Your task to perform on an android device: Open calendar and show me the second week of next month Image 0: 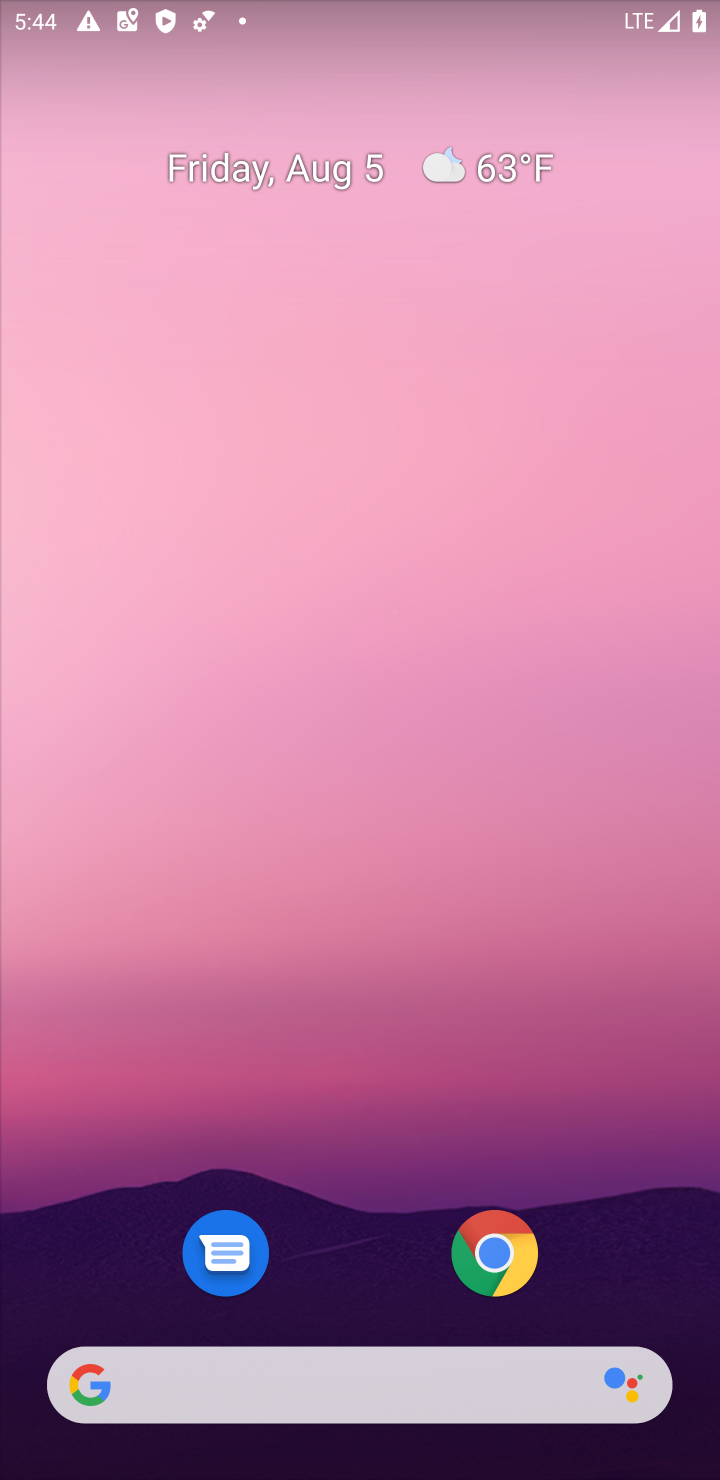
Step 0: drag from (311, 341) to (311, 189)
Your task to perform on an android device: Open calendar and show me the second week of next month Image 1: 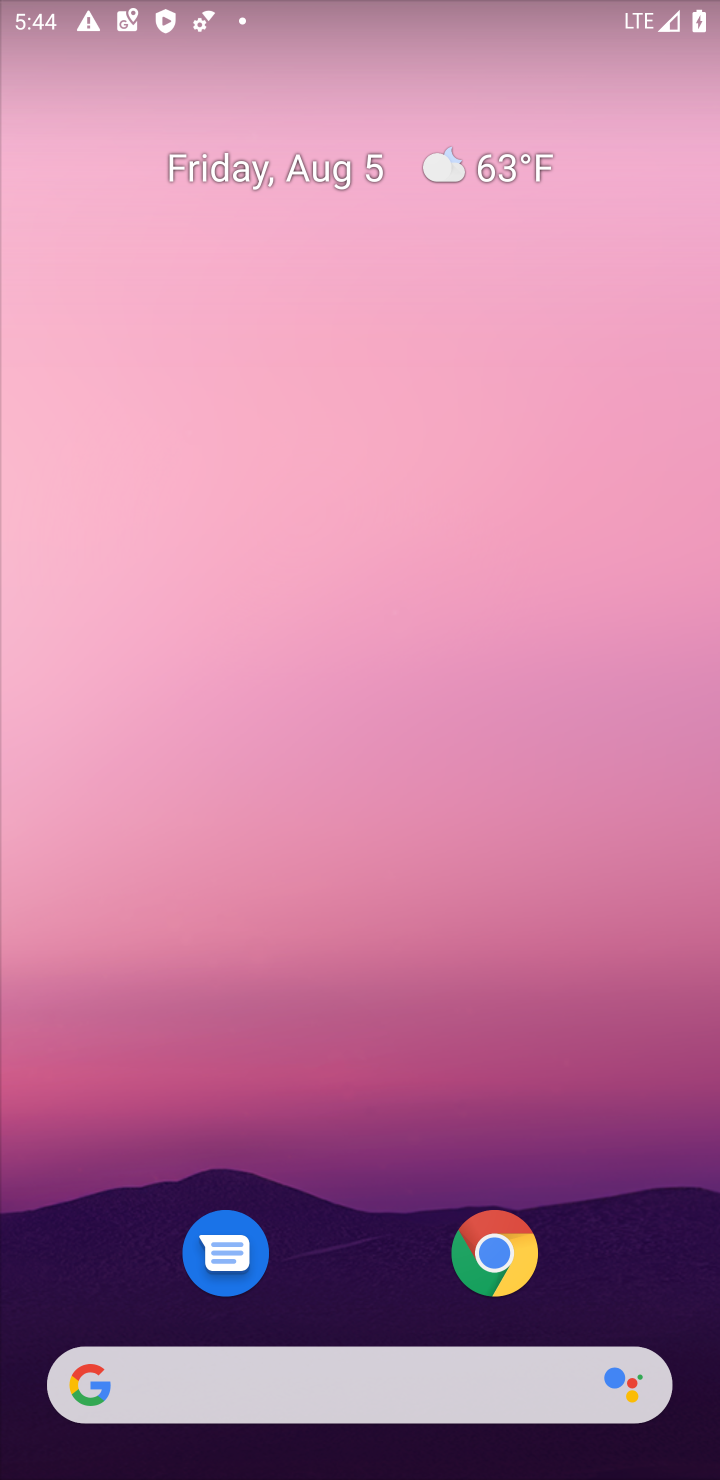
Step 1: drag from (353, 1036) to (396, 14)
Your task to perform on an android device: Open calendar and show me the second week of next month Image 2: 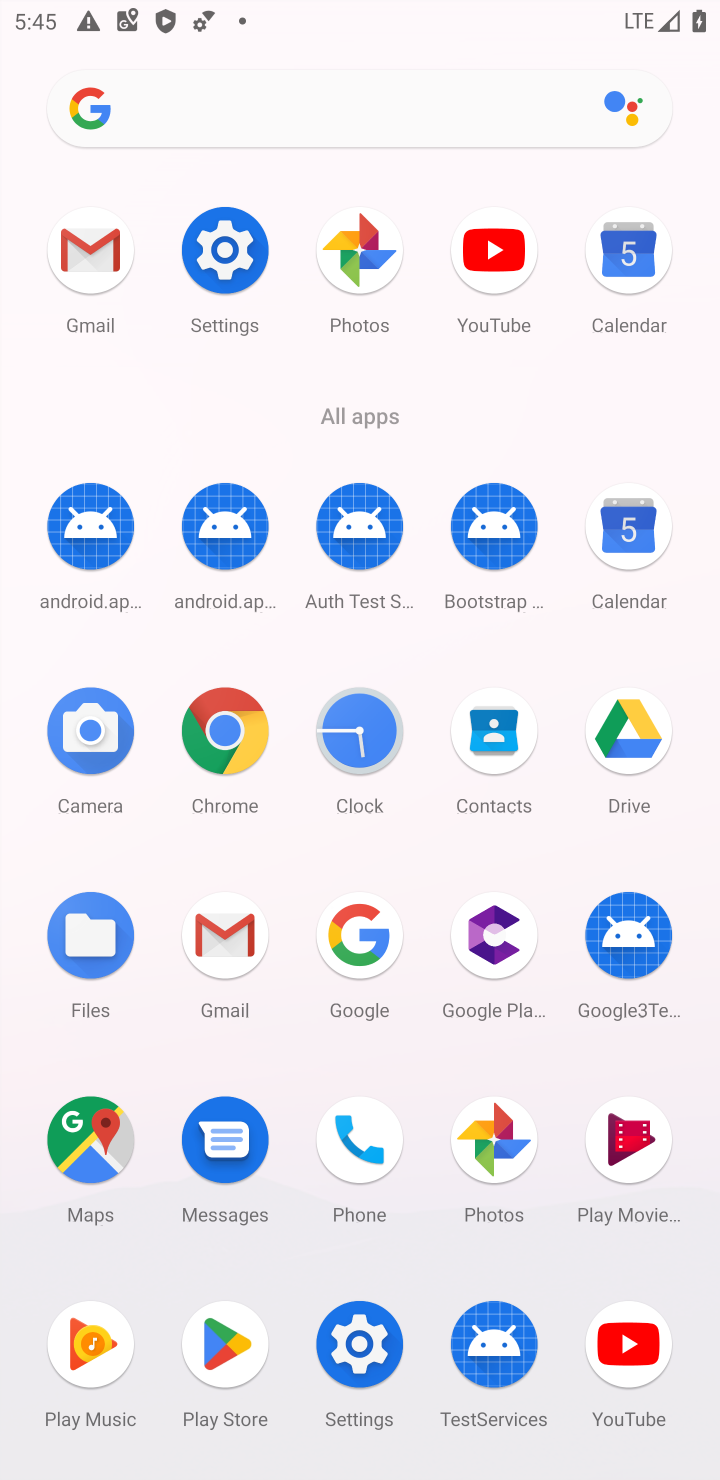
Step 2: click (626, 509)
Your task to perform on an android device: Open calendar and show me the second week of next month Image 3: 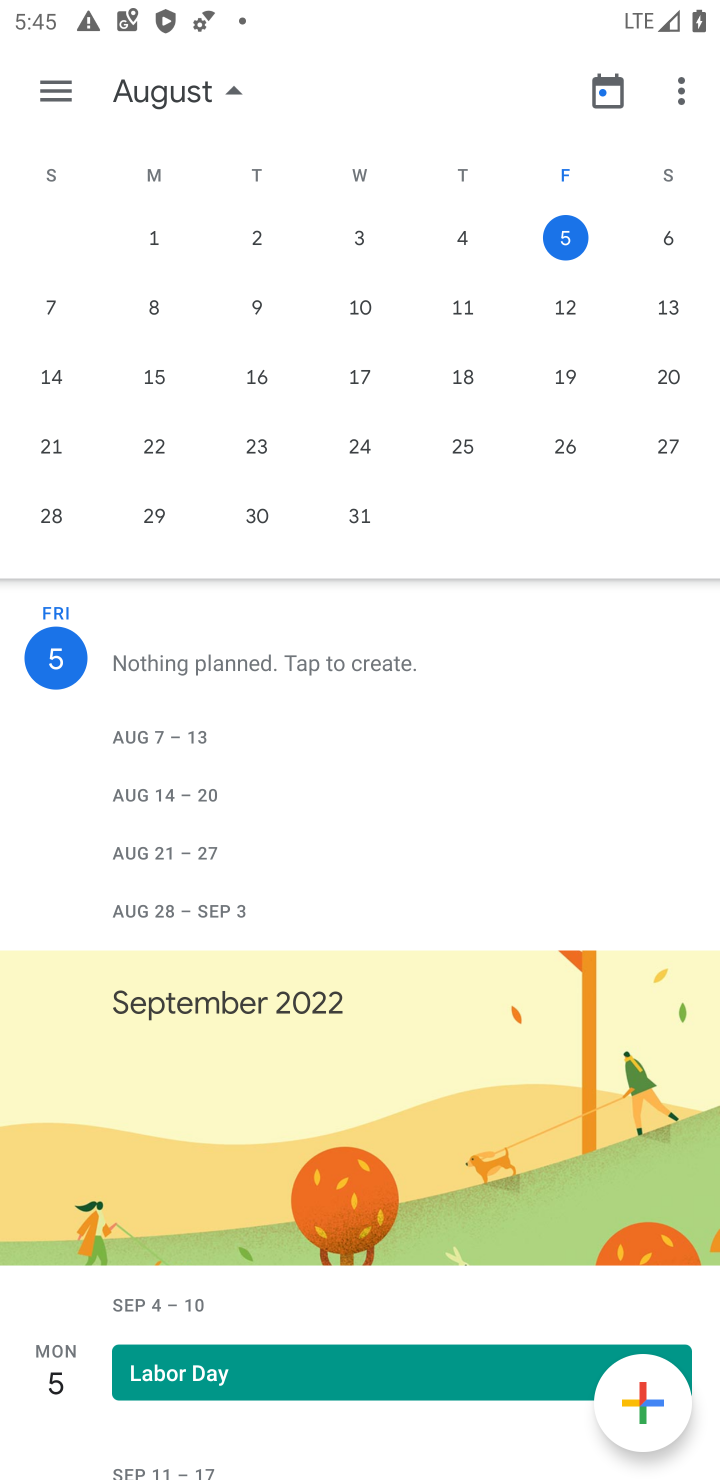
Step 3: drag from (699, 325) to (193, 286)
Your task to perform on an android device: Open calendar and show me the second week of next month Image 4: 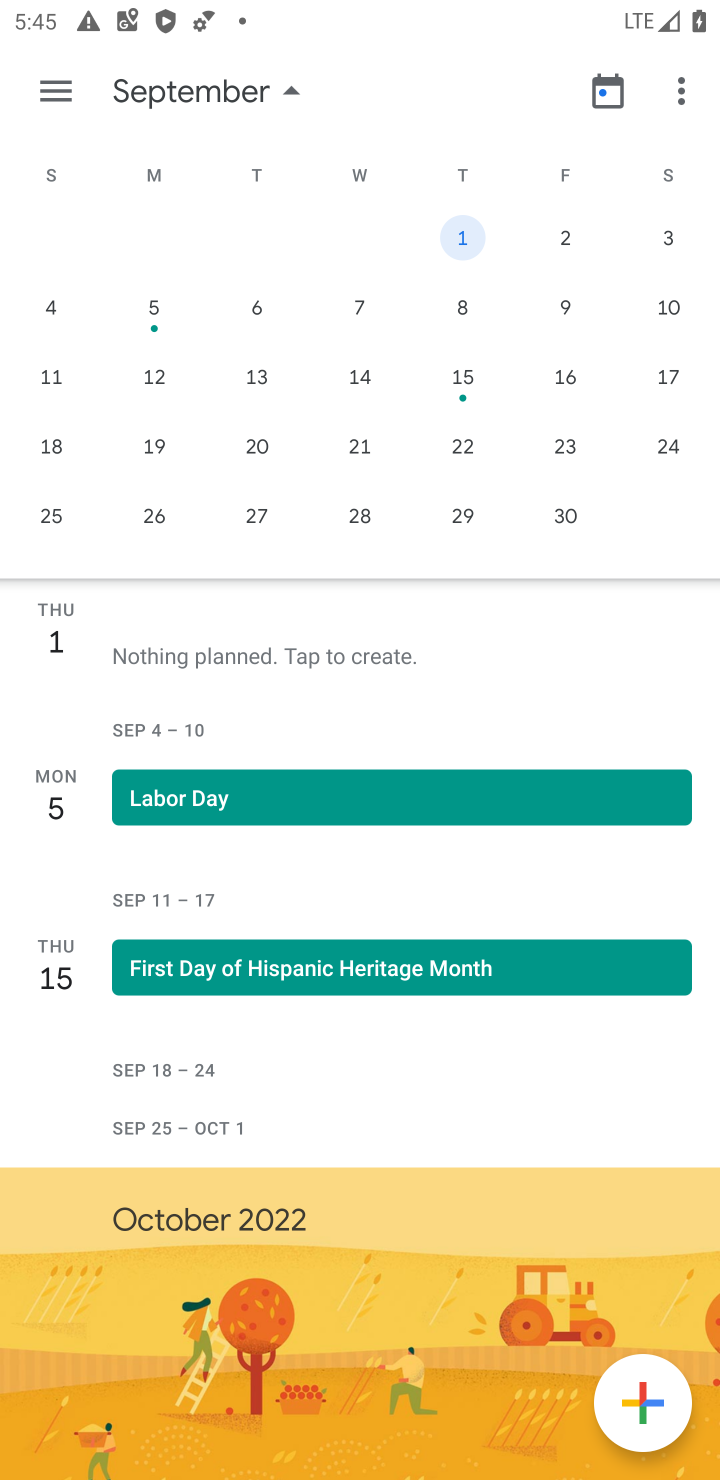
Step 4: click (48, 320)
Your task to perform on an android device: Open calendar and show me the second week of next month Image 5: 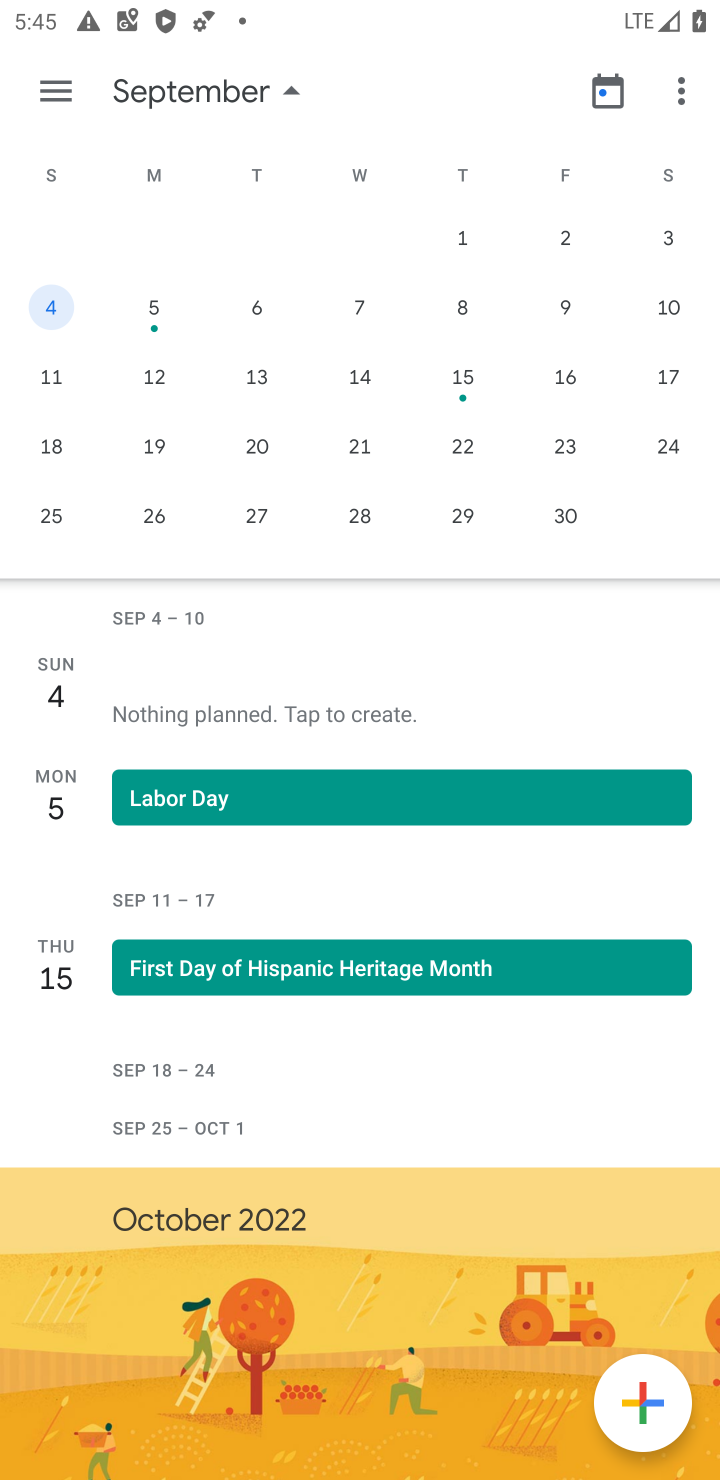
Step 5: task complete